Your task to perform on an android device: all mails in gmail Image 0: 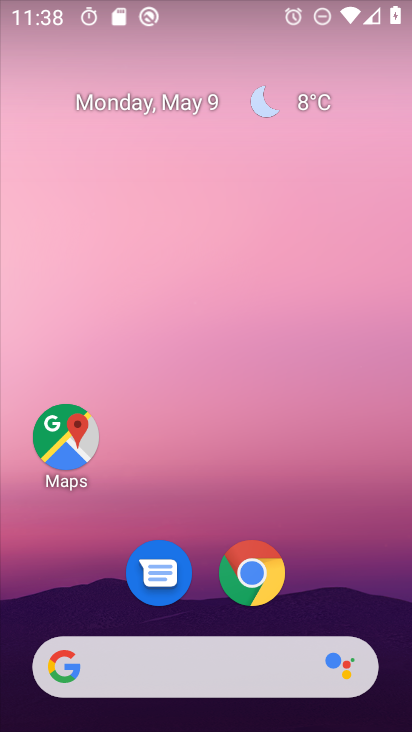
Step 0: drag from (331, 599) to (288, 145)
Your task to perform on an android device: all mails in gmail Image 1: 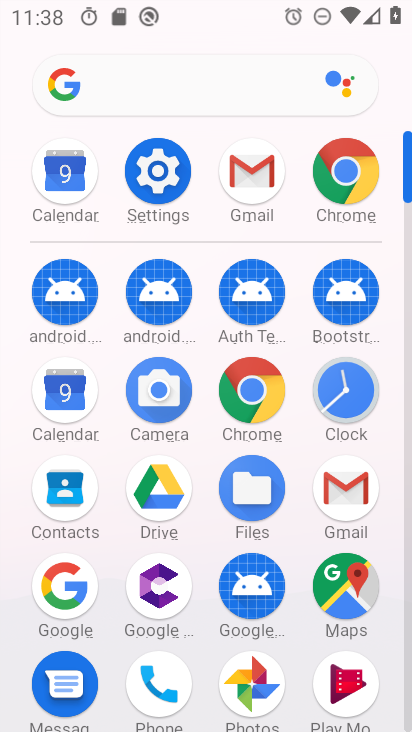
Step 1: click (352, 480)
Your task to perform on an android device: all mails in gmail Image 2: 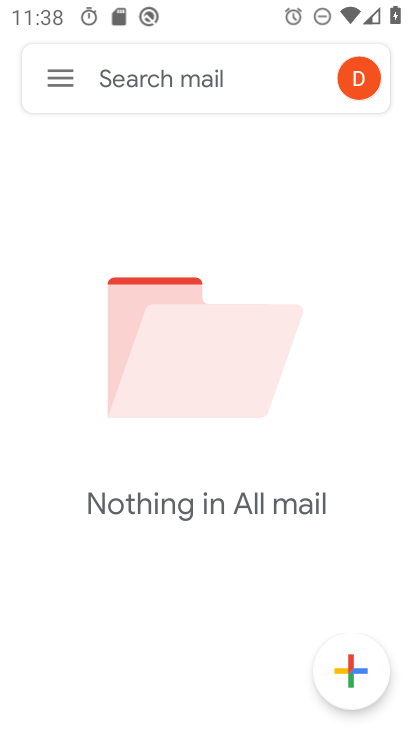
Step 2: task complete